Your task to perform on an android device: turn on data saver in the chrome app Image 0: 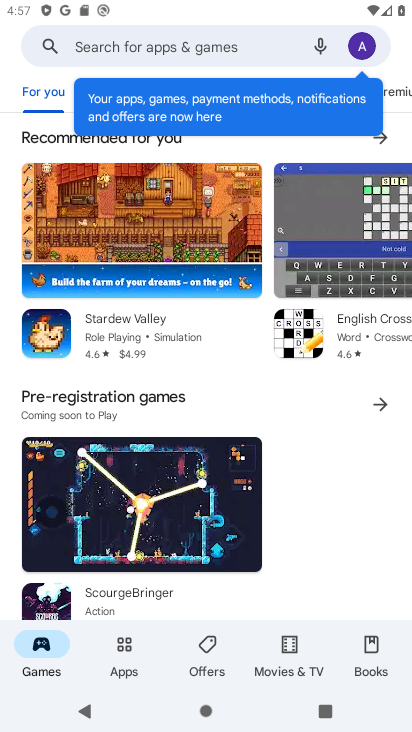
Step 0: press home button
Your task to perform on an android device: turn on data saver in the chrome app Image 1: 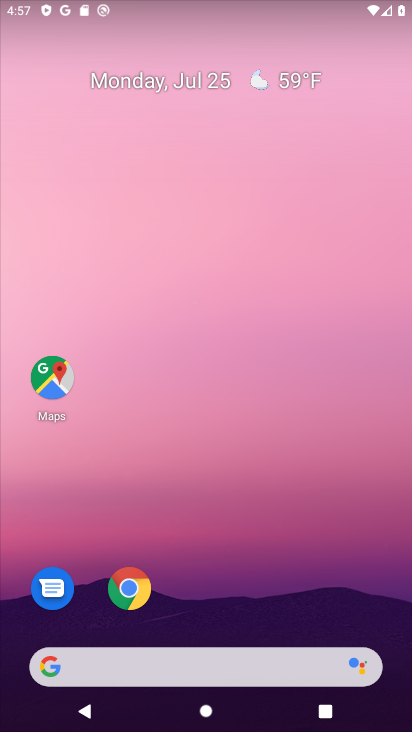
Step 1: drag from (276, 550) to (265, 69)
Your task to perform on an android device: turn on data saver in the chrome app Image 2: 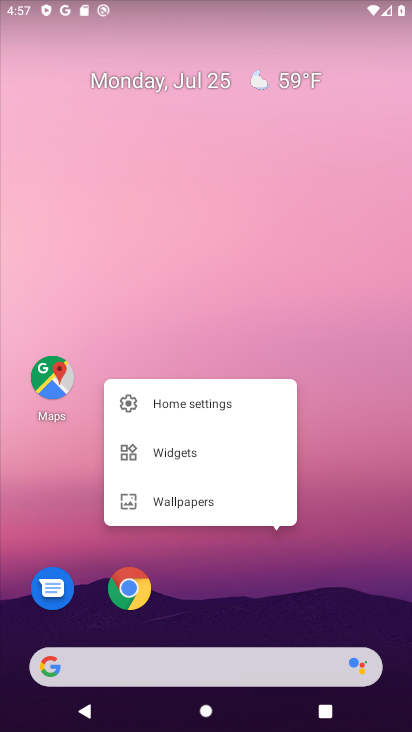
Step 2: click (313, 387)
Your task to perform on an android device: turn on data saver in the chrome app Image 3: 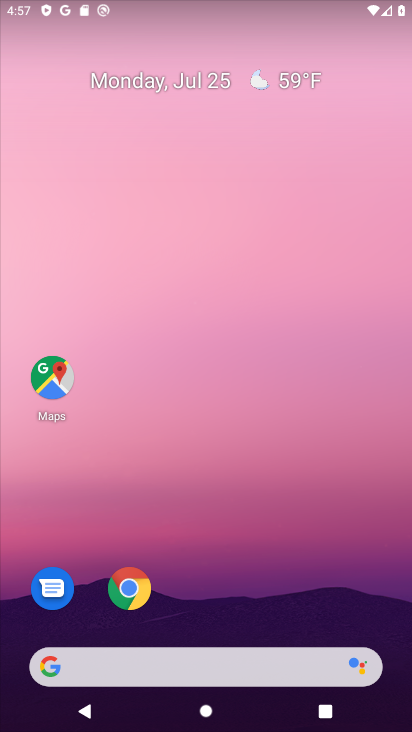
Step 3: drag from (254, 580) to (260, 229)
Your task to perform on an android device: turn on data saver in the chrome app Image 4: 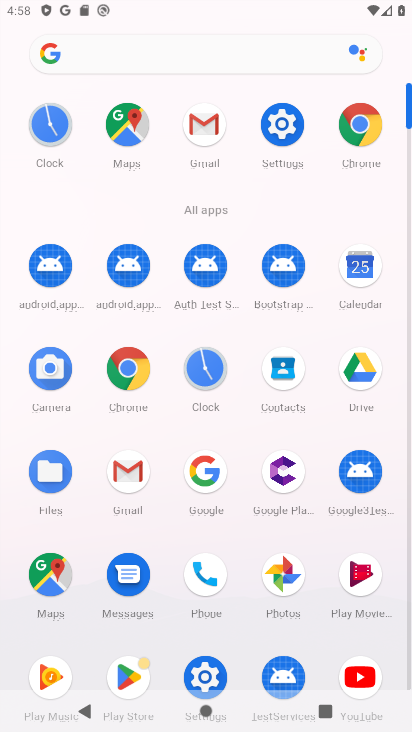
Step 4: click (123, 383)
Your task to perform on an android device: turn on data saver in the chrome app Image 5: 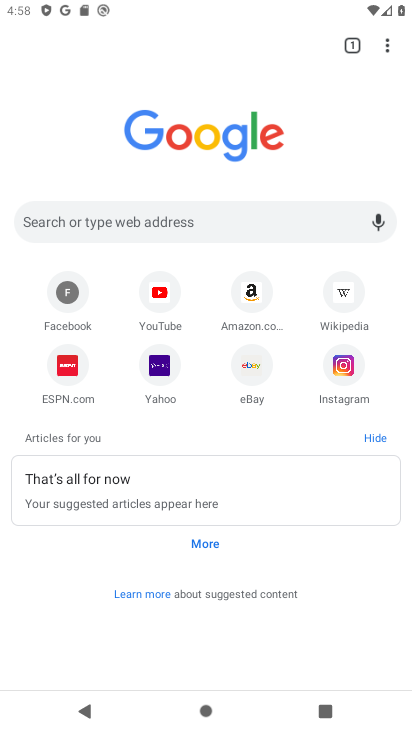
Step 5: click (390, 48)
Your task to perform on an android device: turn on data saver in the chrome app Image 6: 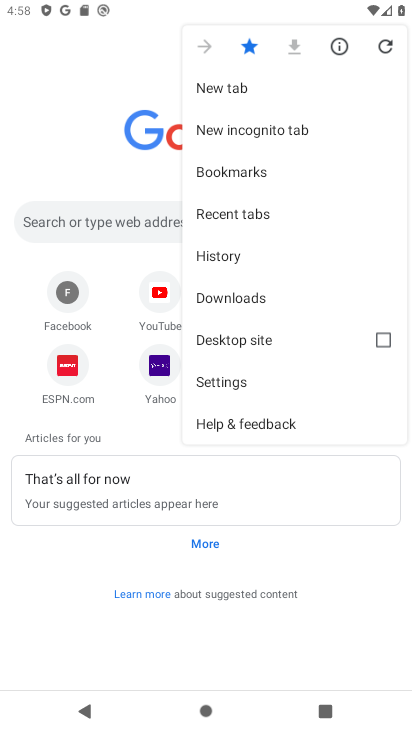
Step 6: click (239, 385)
Your task to perform on an android device: turn on data saver in the chrome app Image 7: 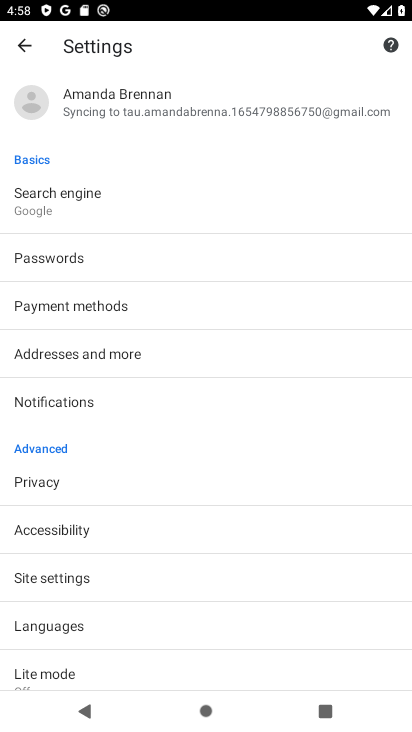
Step 7: task complete